Your task to perform on an android device: uninstall "Firefox Browser" Image 0: 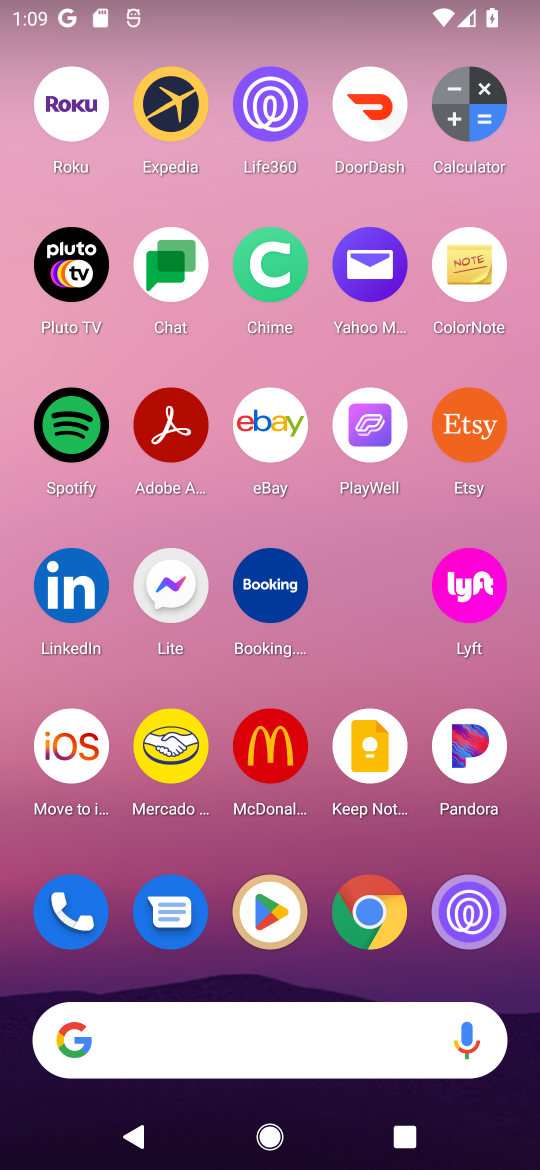
Step 0: click (248, 913)
Your task to perform on an android device: uninstall "Firefox Browser" Image 1: 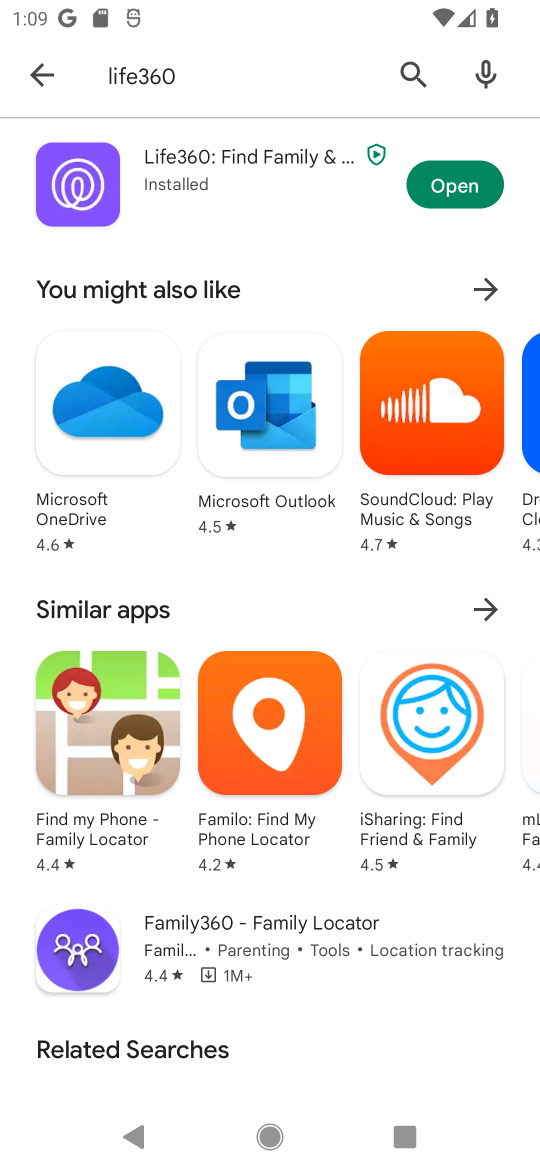
Step 1: click (404, 78)
Your task to perform on an android device: uninstall "Firefox Browser" Image 2: 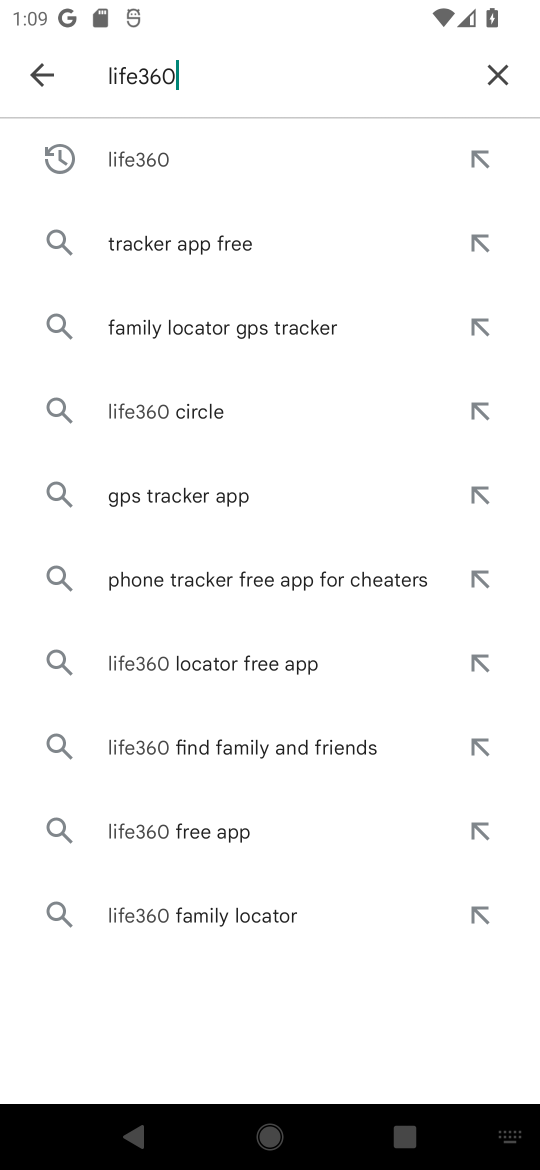
Step 2: click (511, 79)
Your task to perform on an android device: uninstall "Firefox Browser" Image 3: 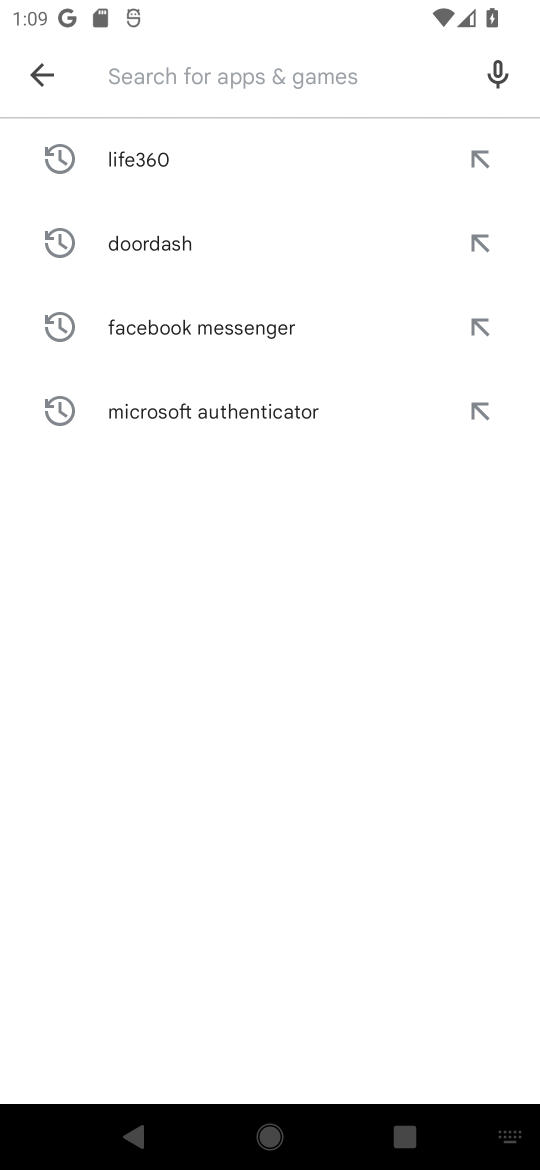
Step 3: click (143, 65)
Your task to perform on an android device: uninstall "Firefox Browser" Image 4: 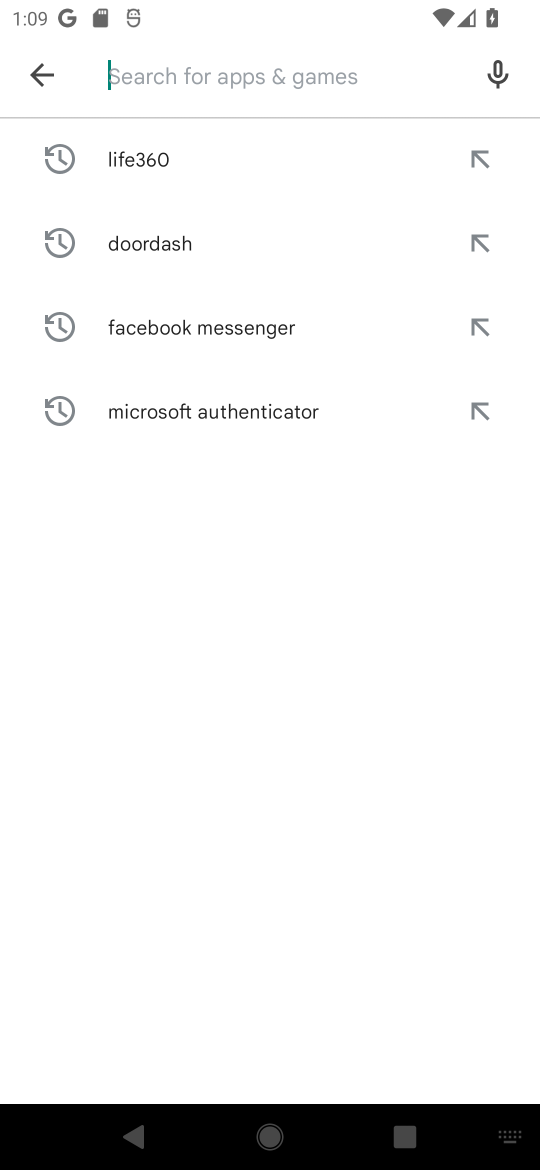
Step 4: type "Firefox Browser"
Your task to perform on an android device: uninstall "Firefox Browser" Image 5: 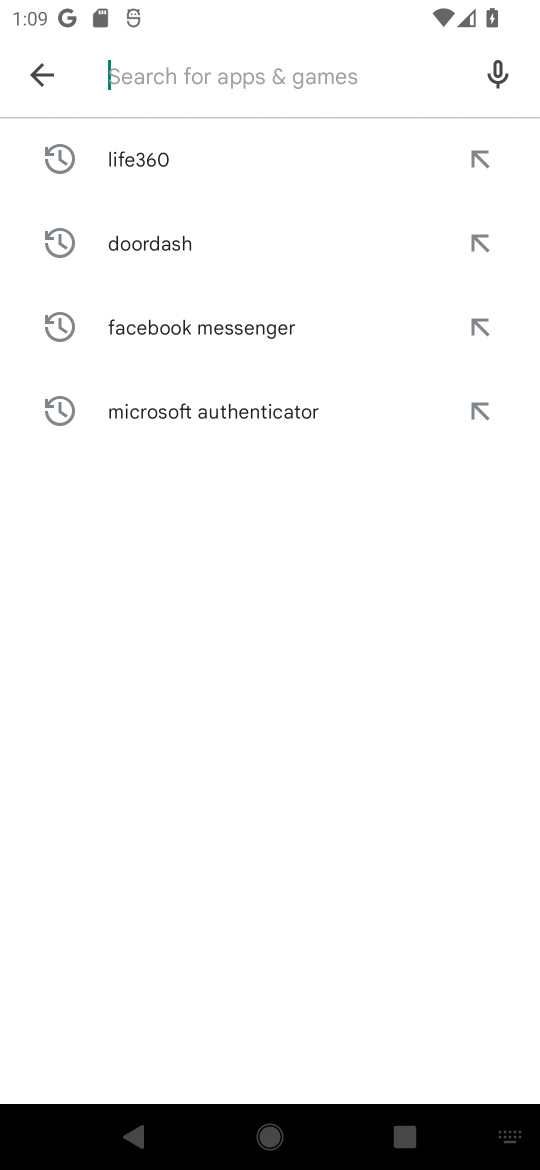
Step 5: click (307, 685)
Your task to perform on an android device: uninstall "Firefox Browser" Image 6: 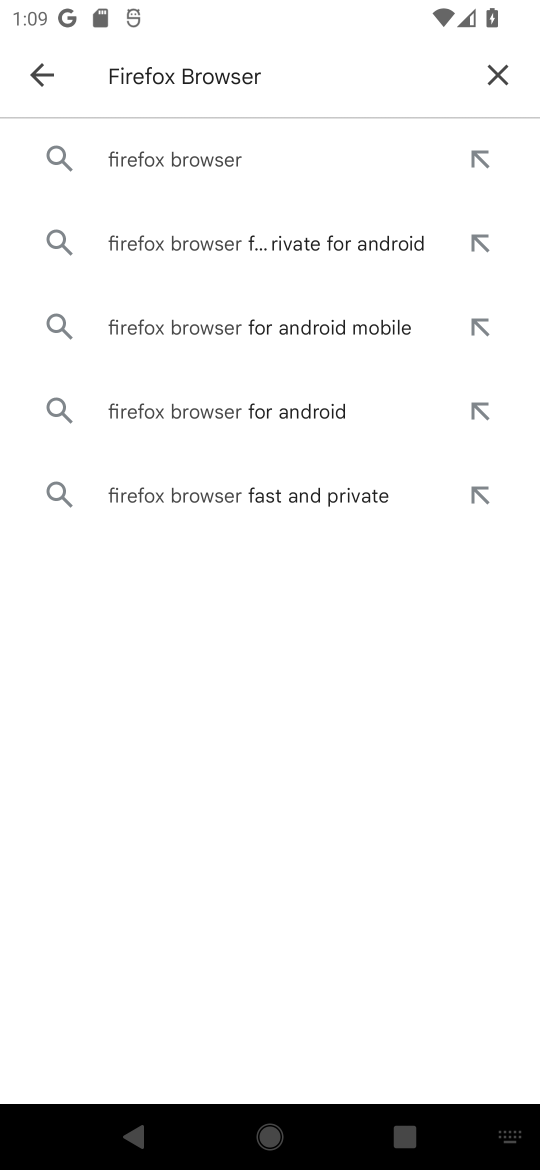
Step 6: click (178, 140)
Your task to perform on an android device: uninstall "Firefox Browser" Image 7: 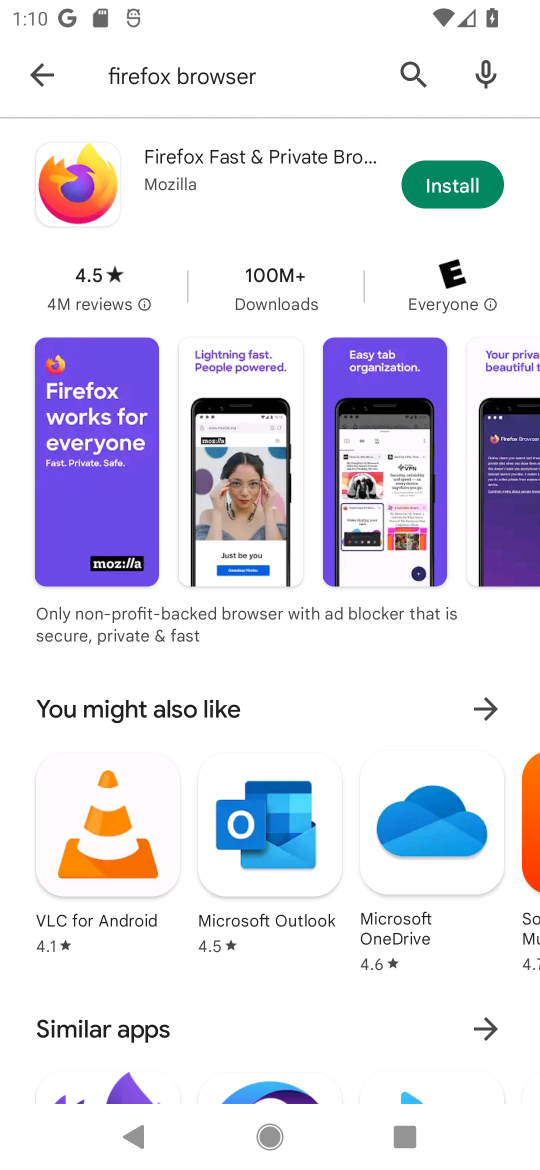
Step 7: task complete